Your task to perform on an android device: turn notification dots on Image 0: 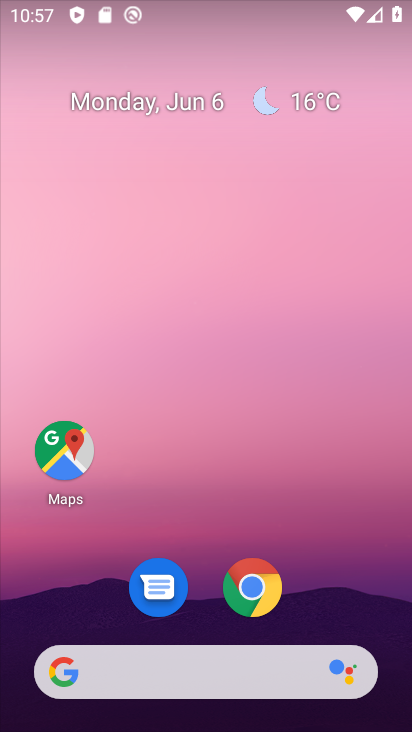
Step 0: drag from (301, 495) to (237, 46)
Your task to perform on an android device: turn notification dots on Image 1: 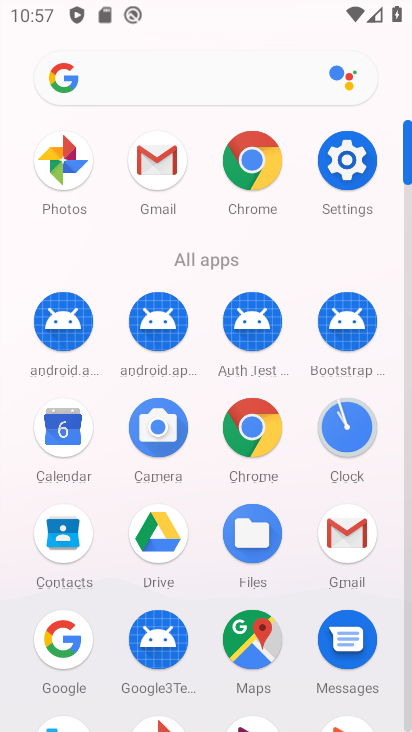
Step 1: click (346, 160)
Your task to perform on an android device: turn notification dots on Image 2: 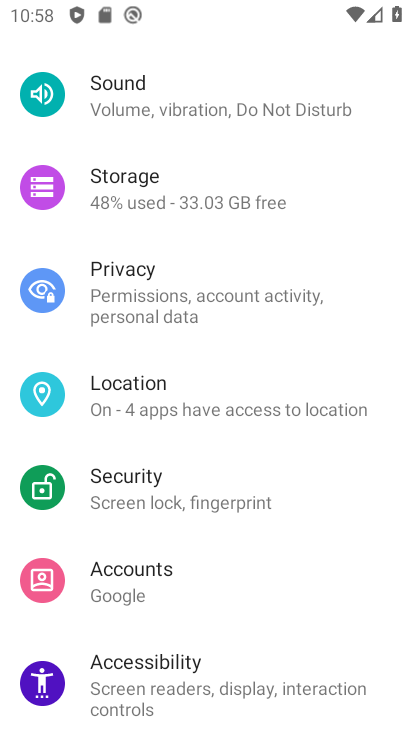
Step 2: drag from (277, 554) to (300, 148)
Your task to perform on an android device: turn notification dots on Image 3: 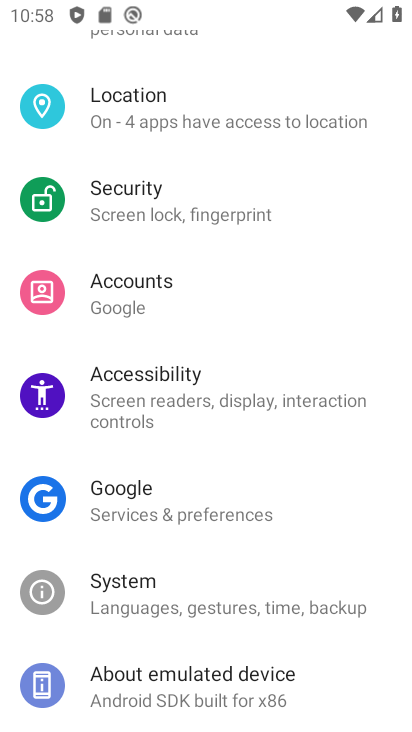
Step 3: drag from (301, 152) to (286, 562)
Your task to perform on an android device: turn notification dots on Image 4: 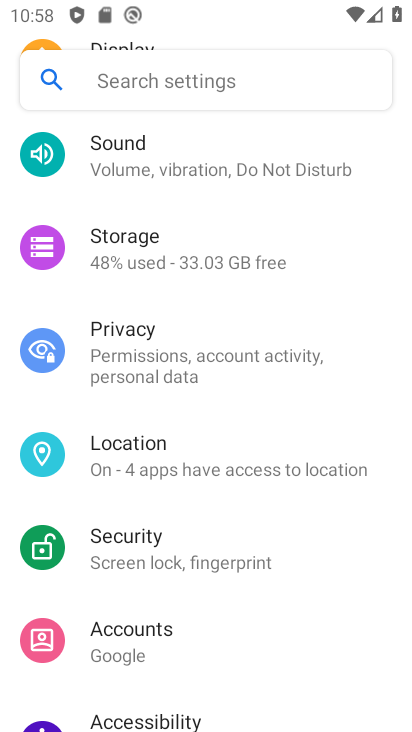
Step 4: drag from (298, 260) to (278, 577)
Your task to perform on an android device: turn notification dots on Image 5: 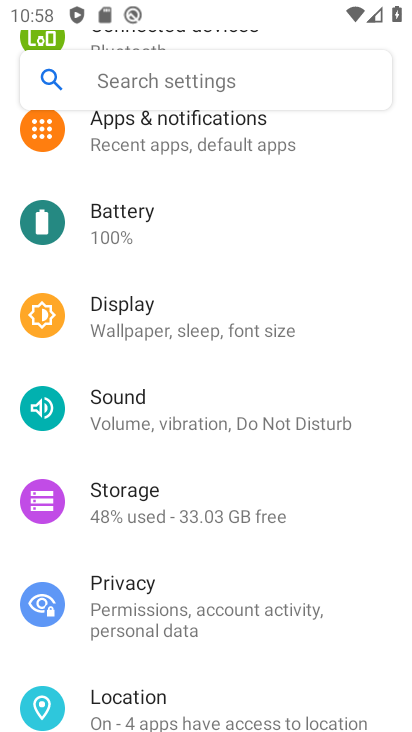
Step 5: click (233, 130)
Your task to perform on an android device: turn notification dots on Image 6: 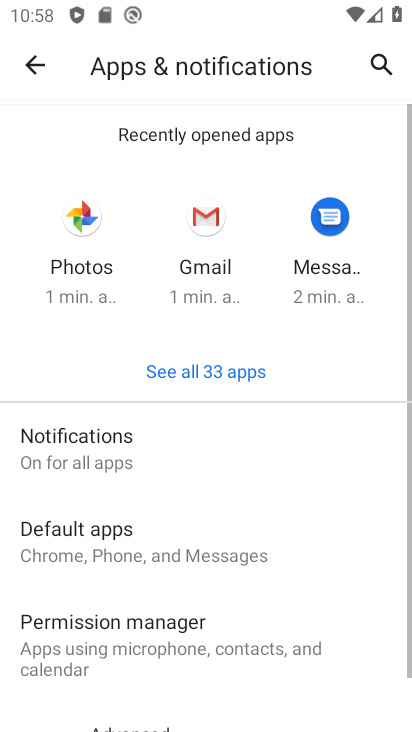
Step 6: drag from (222, 633) to (281, 243)
Your task to perform on an android device: turn notification dots on Image 7: 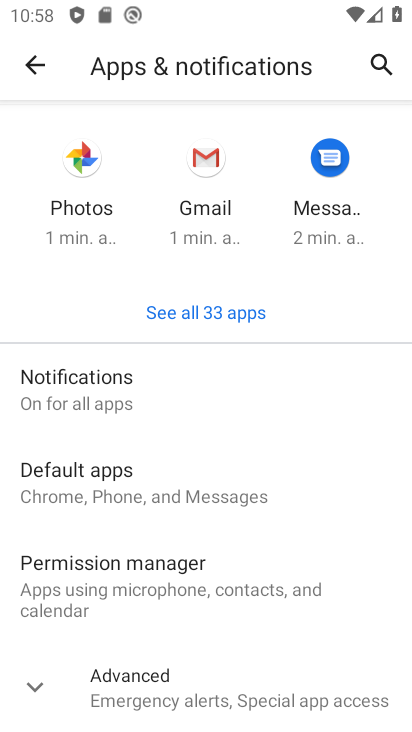
Step 7: click (49, 680)
Your task to perform on an android device: turn notification dots on Image 8: 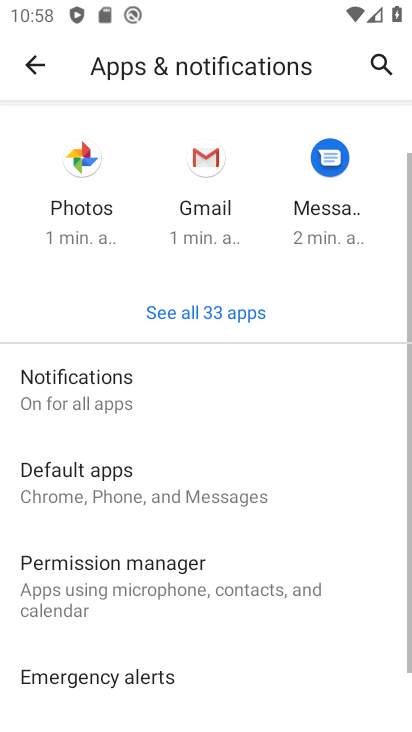
Step 8: drag from (284, 630) to (314, 252)
Your task to perform on an android device: turn notification dots on Image 9: 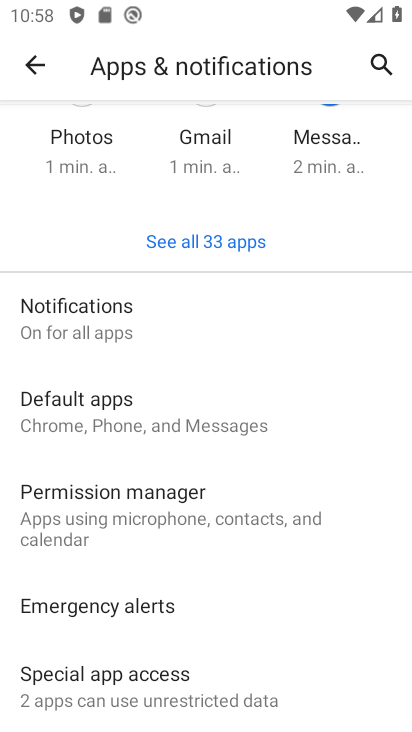
Step 9: click (184, 320)
Your task to perform on an android device: turn notification dots on Image 10: 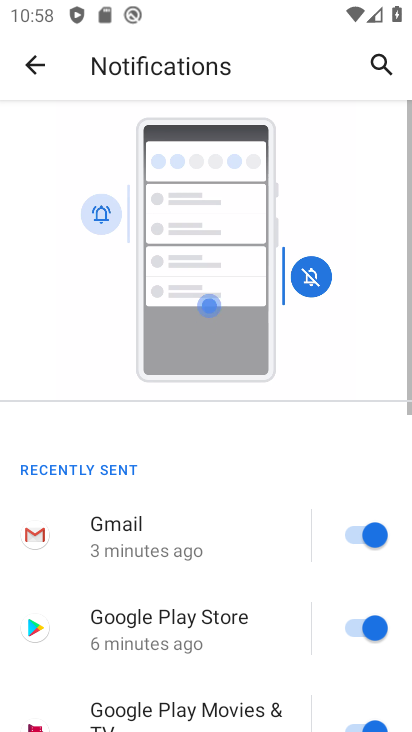
Step 10: drag from (215, 628) to (257, 166)
Your task to perform on an android device: turn notification dots on Image 11: 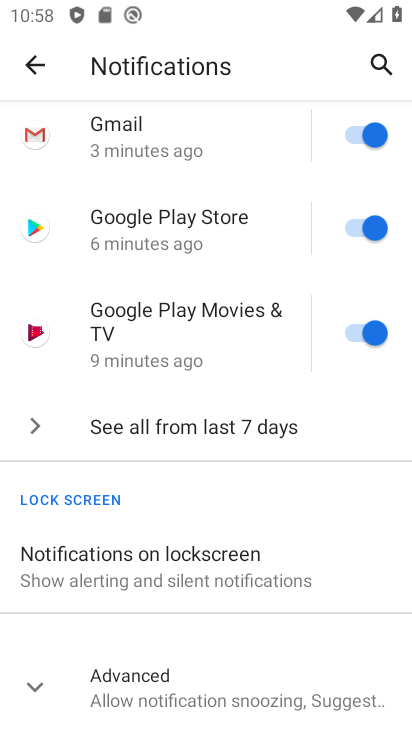
Step 11: drag from (163, 667) to (274, 211)
Your task to perform on an android device: turn notification dots on Image 12: 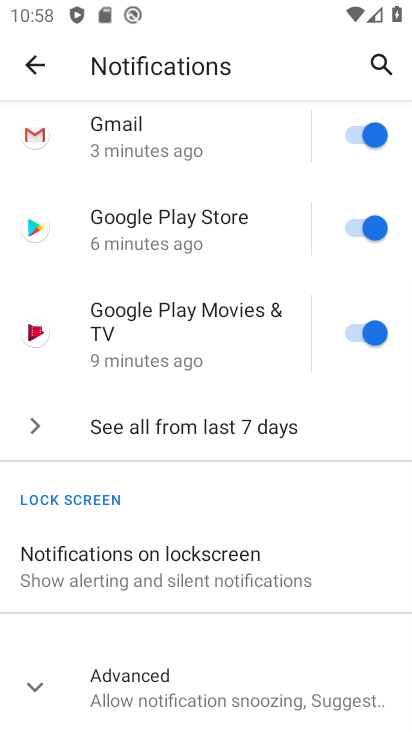
Step 12: click (39, 679)
Your task to perform on an android device: turn notification dots on Image 13: 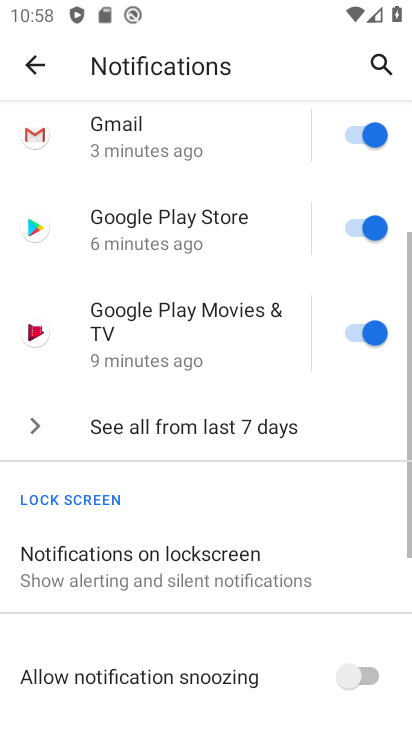
Step 13: drag from (199, 599) to (229, 210)
Your task to perform on an android device: turn notification dots on Image 14: 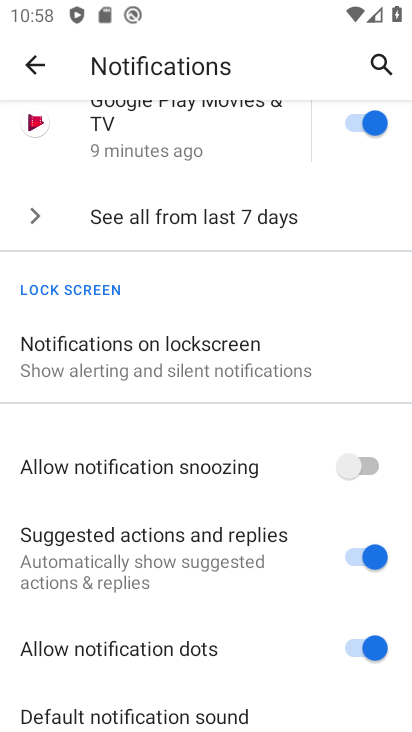
Step 14: drag from (182, 630) to (228, 318)
Your task to perform on an android device: turn notification dots on Image 15: 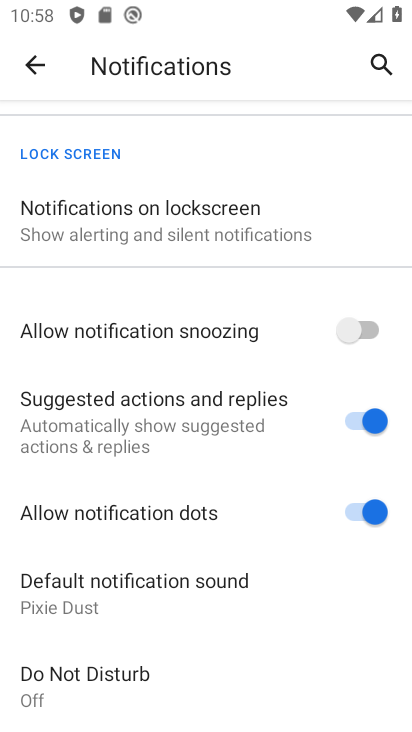
Step 15: click (365, 512)
Your task to perform on an android device: turn notification dots on Image 16: 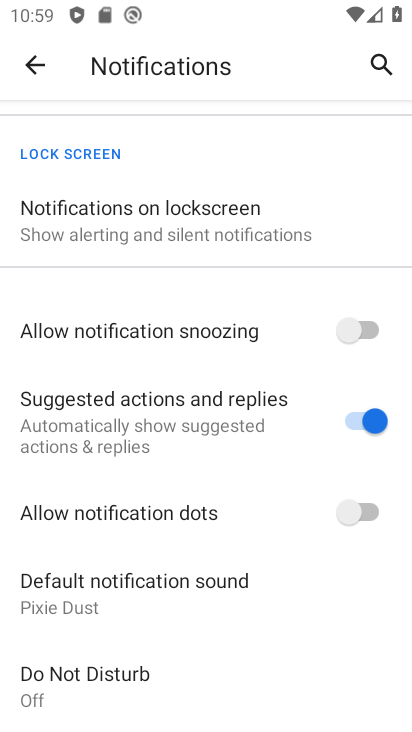
Step 16: click (383, 494)
Your task to perform on an android device: turn notification dots on Image 17: 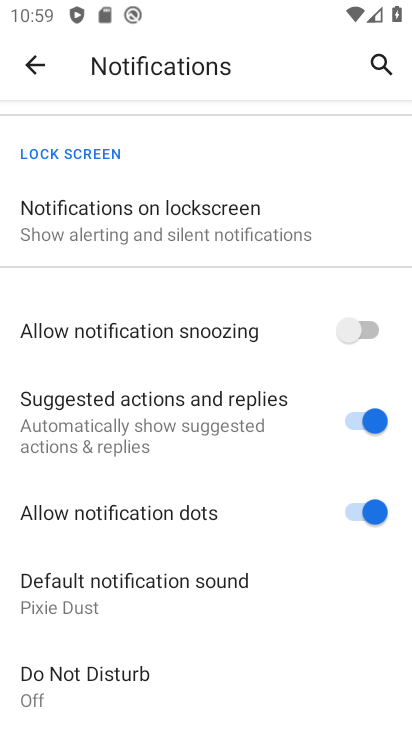
Step 17: task complete